Your task to perform on an android device: toggle show notifications on the lock screen Image 0: 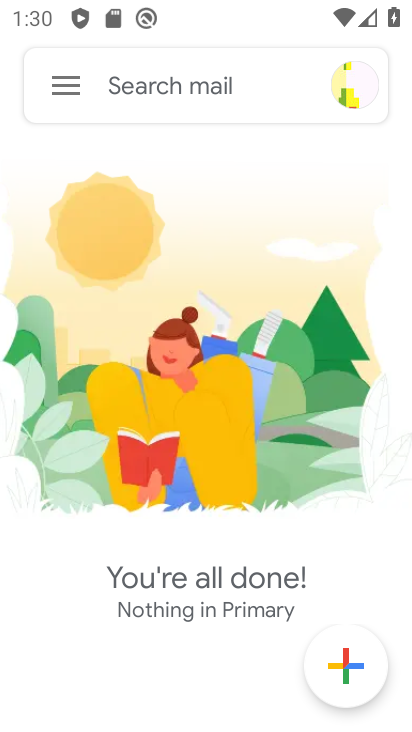
Step 0: press home button
Your task to perform on an android device: toggle show notifications on the lock screen Image 1: 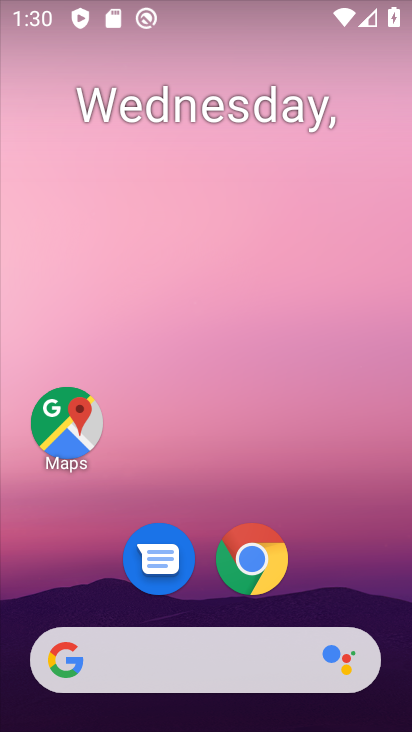
Step 1: drag from (208, 500) to (222, 47)
Your task to perform on an android device: toggle show notifications on the lock screen Image 2: 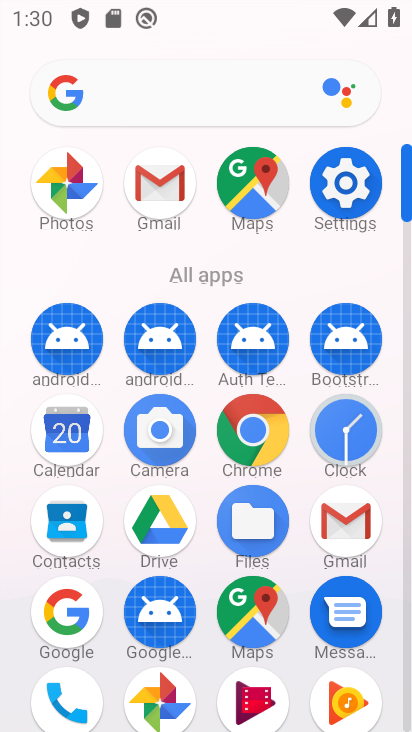
Step 2: click (347, 198)
Your task to perform on an android device: toggle show notifications on the lock screen Image 3: 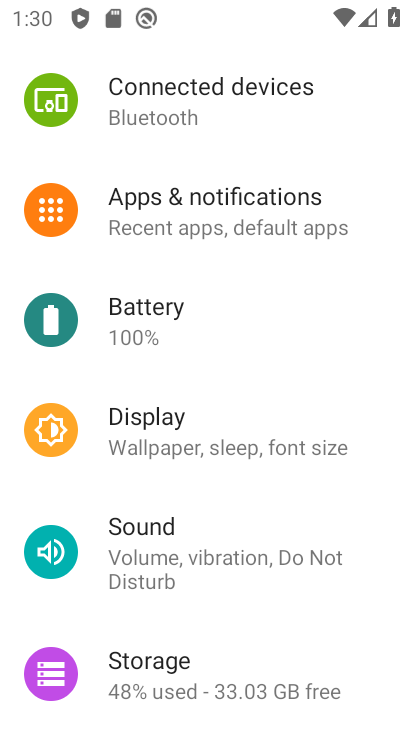
Step 3: click (212, 217)
Your task to perform on an android device: toggle show notifications on the lock screen Image 4: 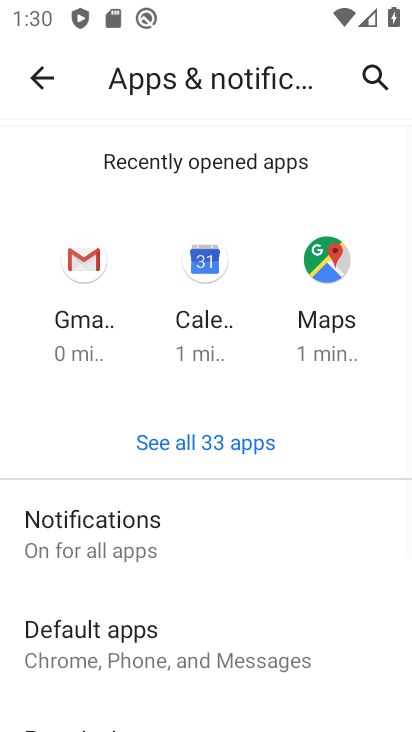
Step 4: click (147, 526)
Your task to perform on an android device: toggle show notifications on the lock screen Image 5: 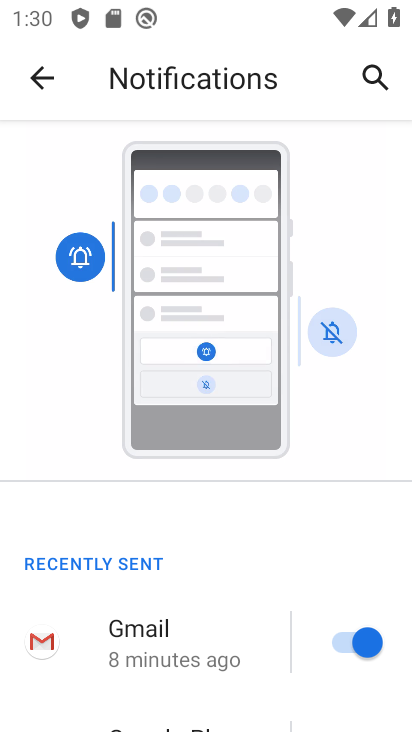
Step 5: drag from (154, 653) to (224, 127)
Your task to perform on an android device: toggle show notifications on the lock screen Image 6: 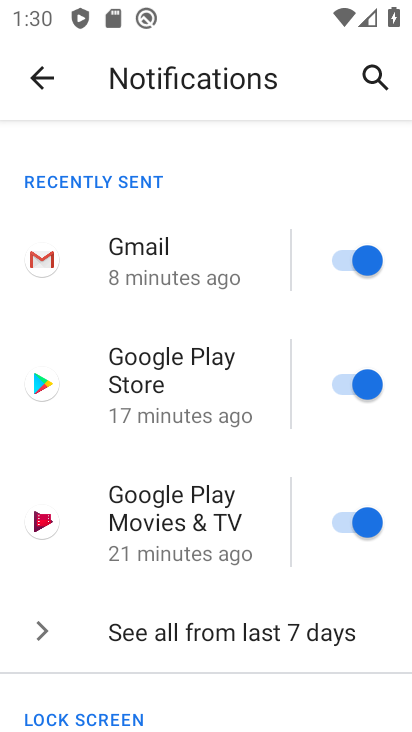
Step 6: drag from (180, 669) to (215, 377)
Your task to perform on an android device: toggle show notifications on the lock screen Image 7: 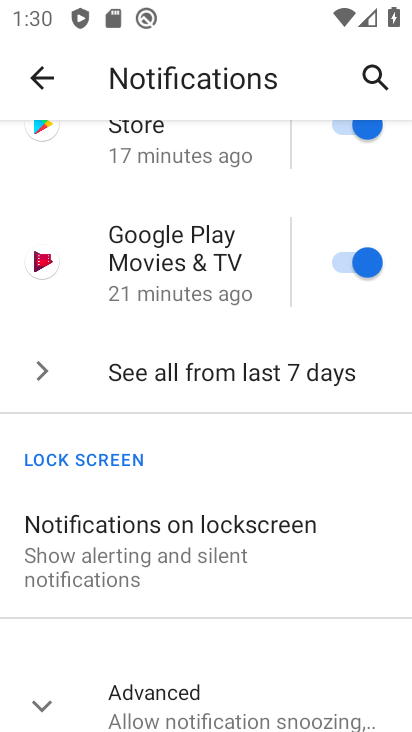
Step 7: click (166, 541)
Your task to perform on an android device: toggle show notifications on the lock screen Image 8: 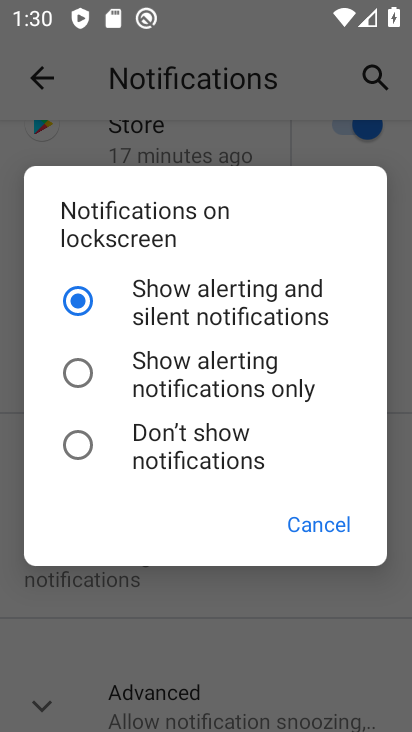
Step 8: click (305, 526)
Your task to perform on an android device: toggle show notifications on the lock screen Image 9: 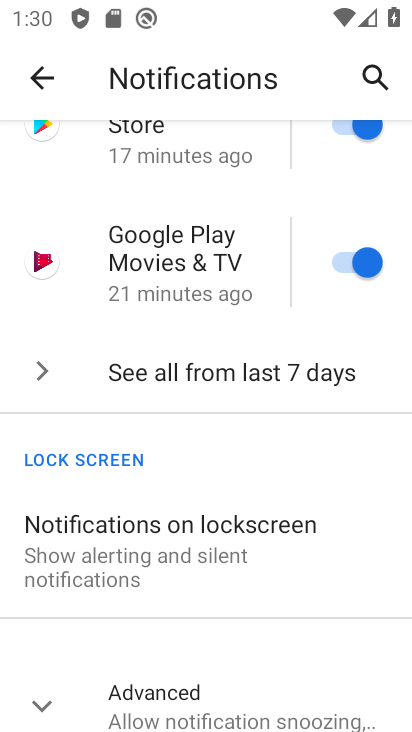
Step 9: task complete